Your task to perform on an android device: Search for sushi restaurants on Maps Image 0: 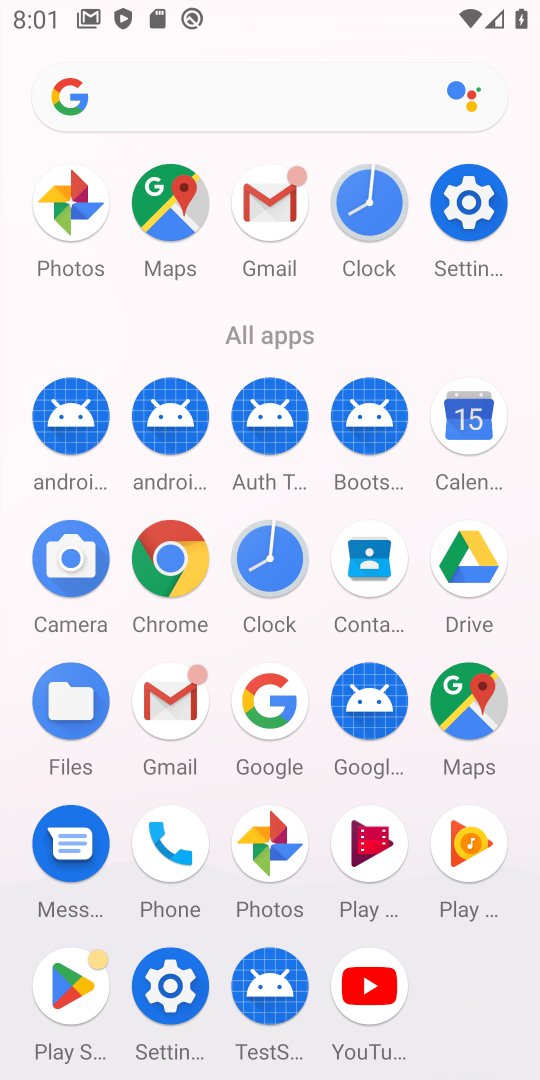
Step 0: press home button
Your task to perform on an android device: Search for sushi restaurants on Maps Image 1: 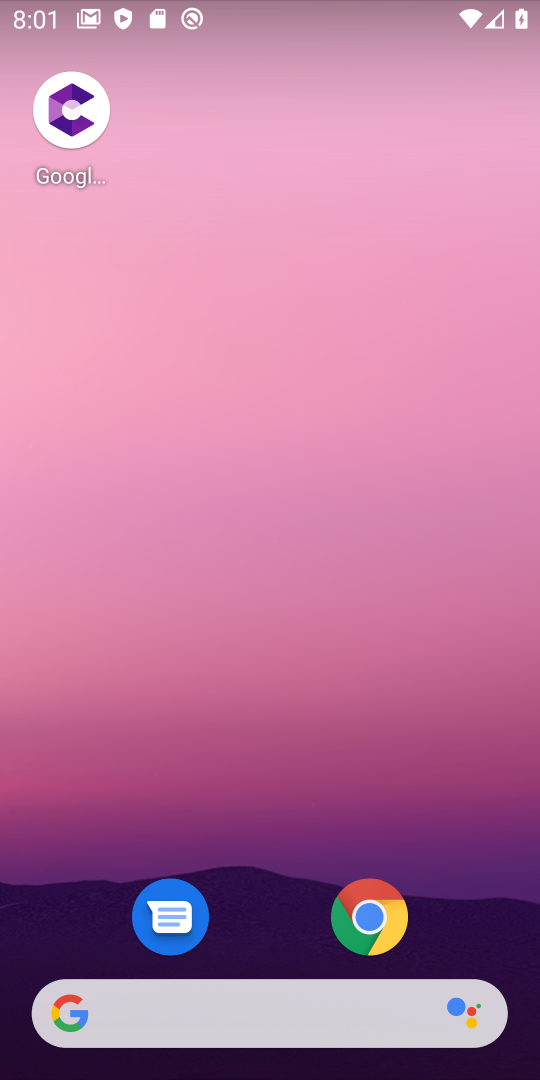
Step 1: drag from (278, 696) to (283, 0)
Your task to perform on an android device: Search for sushi restaurants on Maps Image 2: 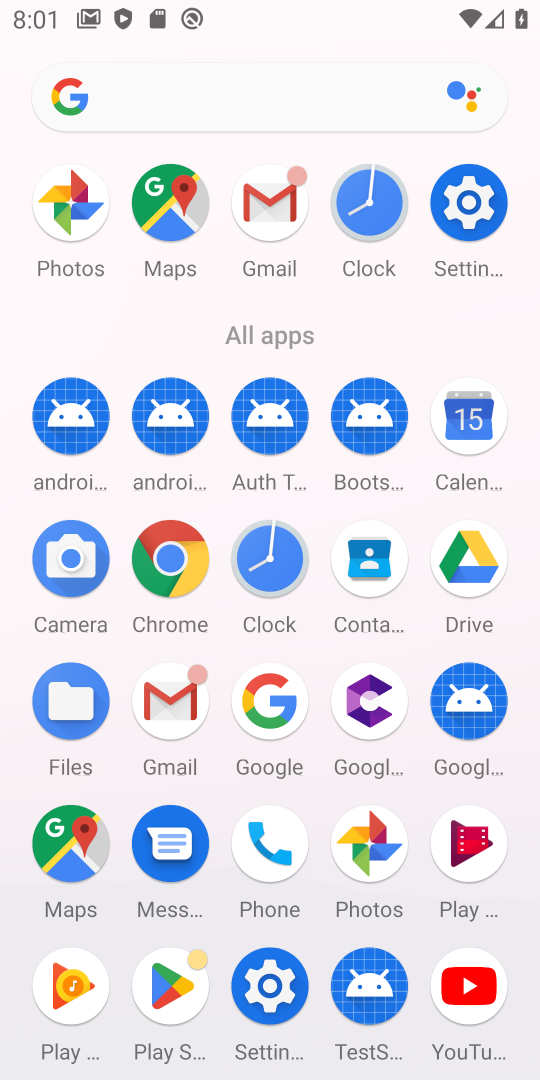
Step 2: click (165, 211)
Your task to perform on an android device: Search for sushi restaurants on Maps Image 3: 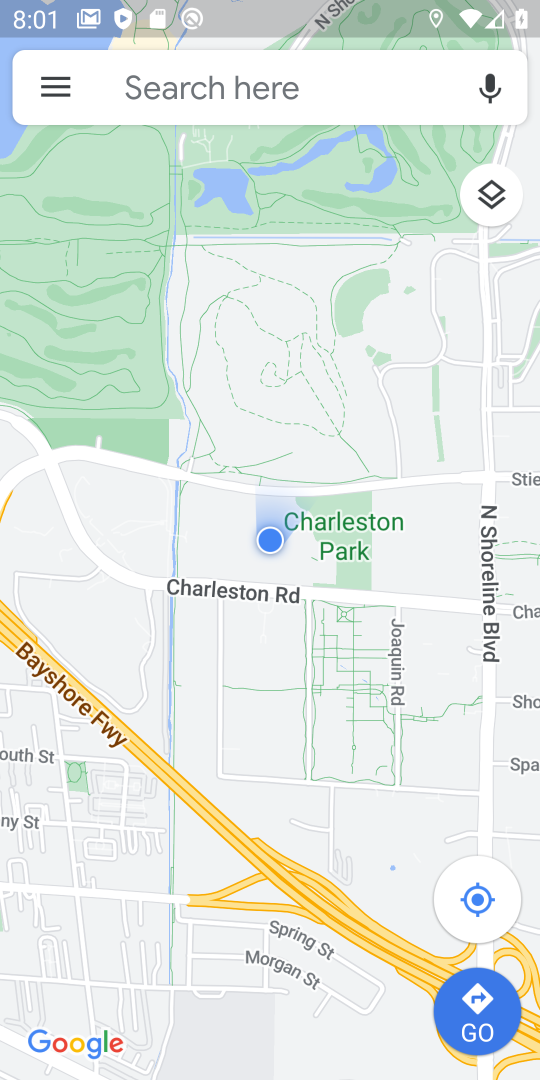
Step 3: click (258, 82)
Your task to perform on an android device: Search for sushi restaurants on Maps Image 4: 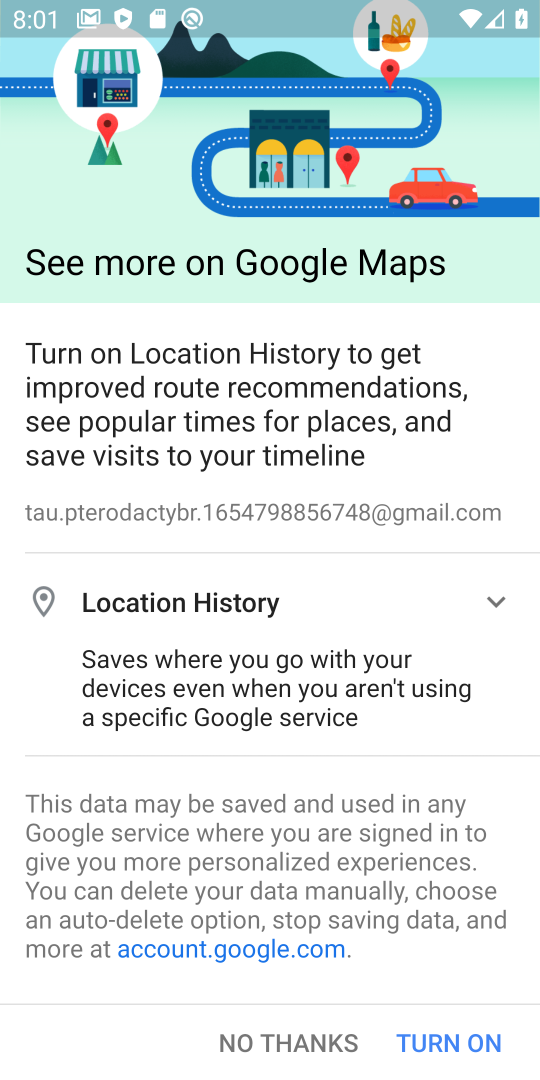
Step 4: click (476, 1038)
Your task to perform on an android device: Search for sushi restaurants on Maps Image 5: 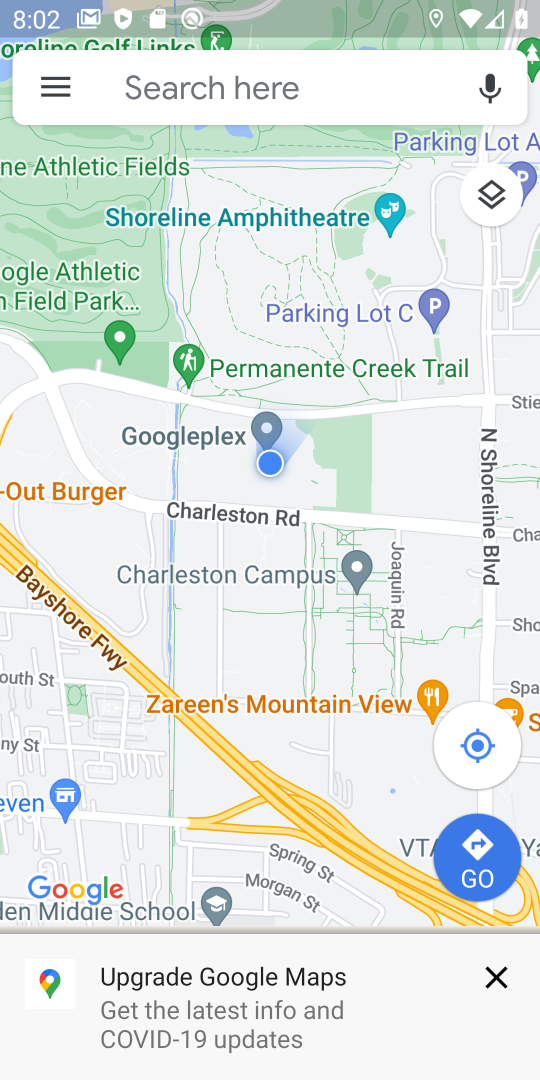
Step 5: click (171, 82)
Your task to perform on an android device: Search for sushi restaurants on Maps Image 6: 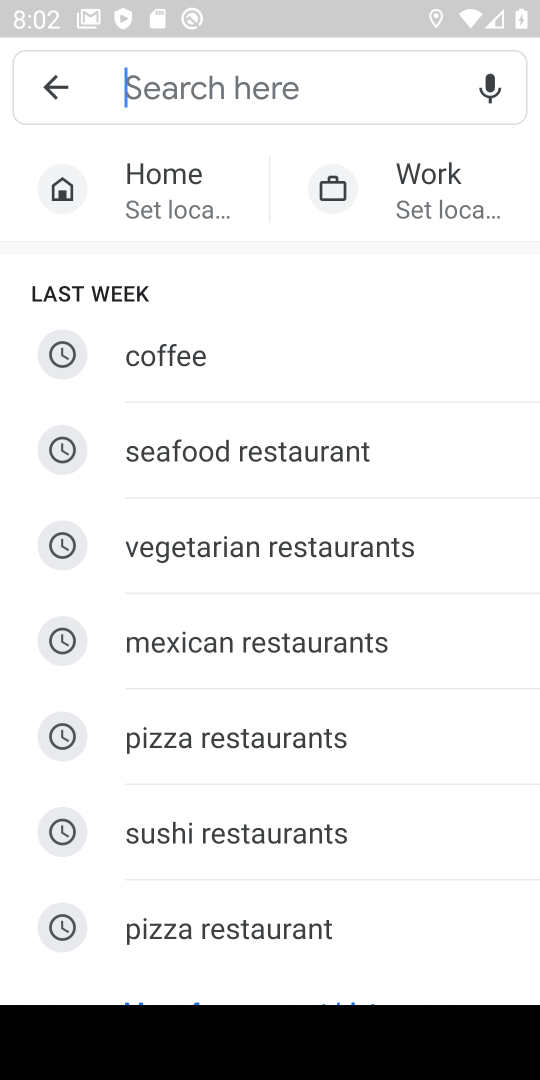
Step 6: click (284, 827)
Your task to perform on an android device: Search for sushi restaurants on Maps Image 7: 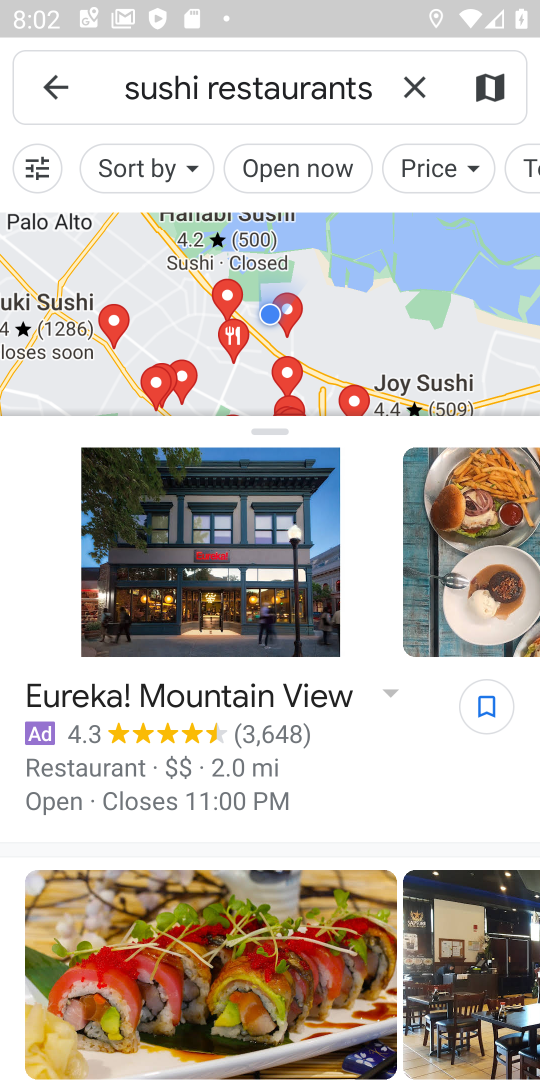
Step 7: task complete